Your task to perform on an android device: Open the web browser Image 0: 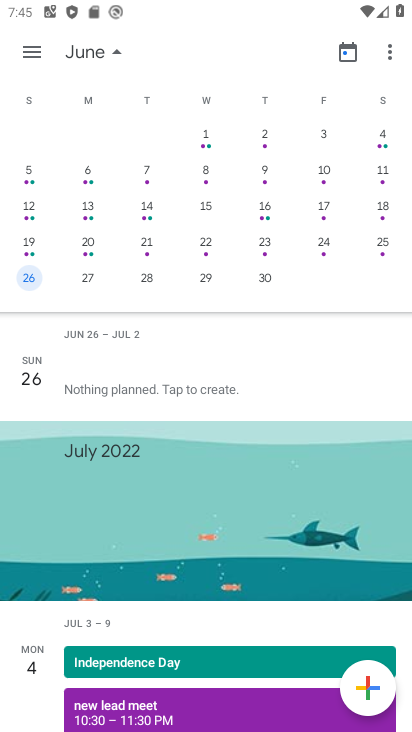
Step 0: press home button
Your task to perform on an android device: Open the web browser Image 1: 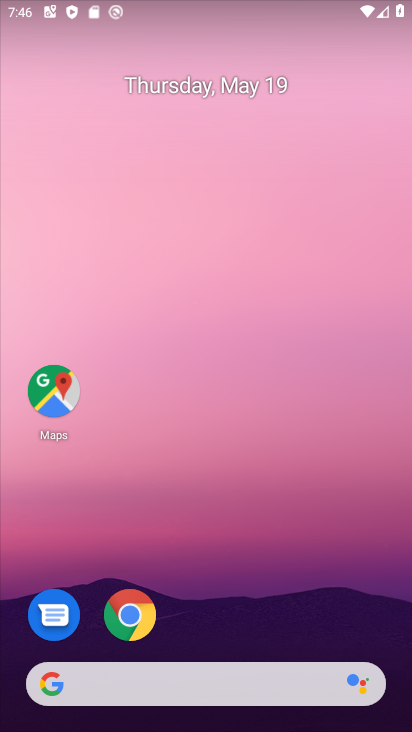
Step 1: drag from (144, 627) to (154, 337)
Your task to perform on an android device: Open the web browser Image 2: 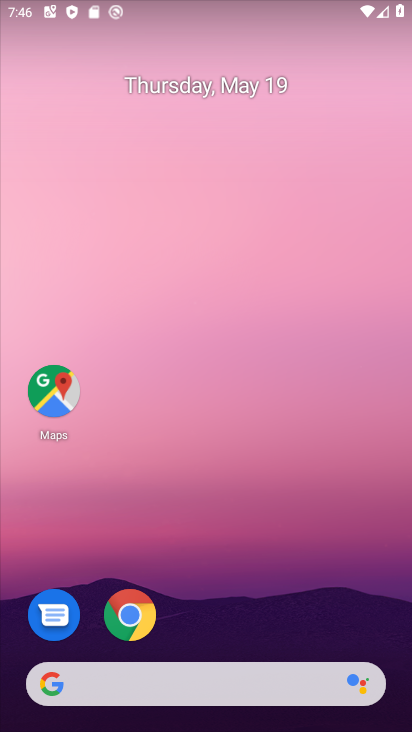
Step 2: drag from (142, 622) to (170, 310)
Your task to perform on an android device: Open the web browser Image 3: 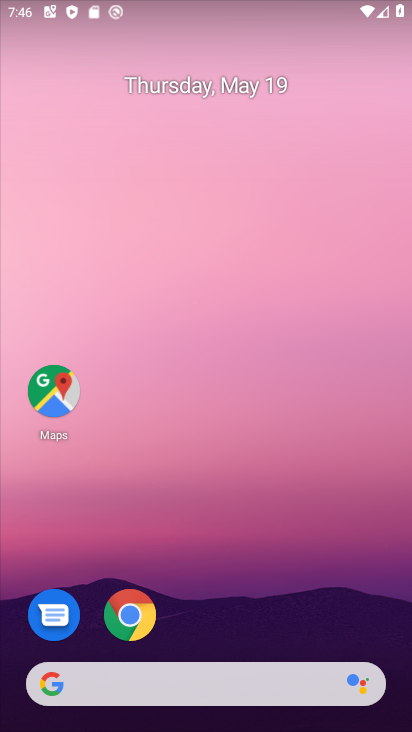
Step 3: drag from (334, 645) to (284, 139)
Your task to perform on an android device: Open the web browser Image 4: 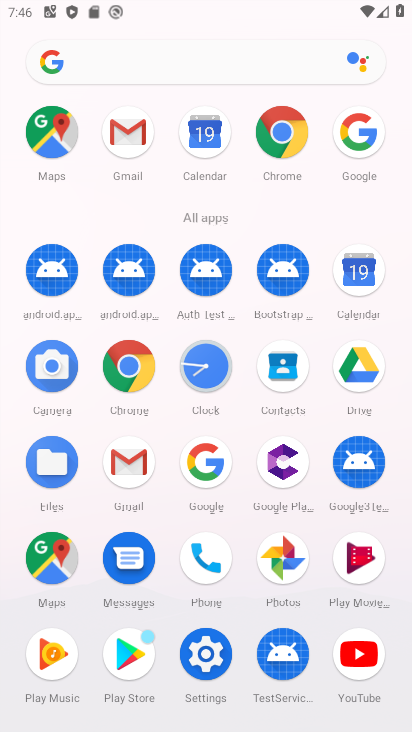
Step 4: click (277, 150)
Your task to perform on an android device: Open the web browser Image 5: 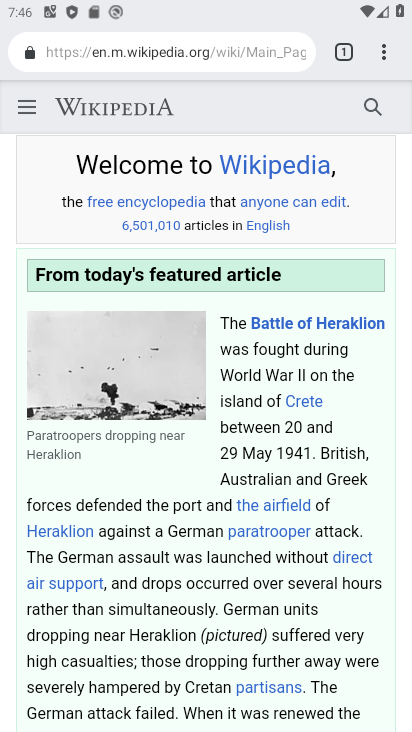
Step 5: task complete